Your task to perform on an android device: toggle location history Image 0: 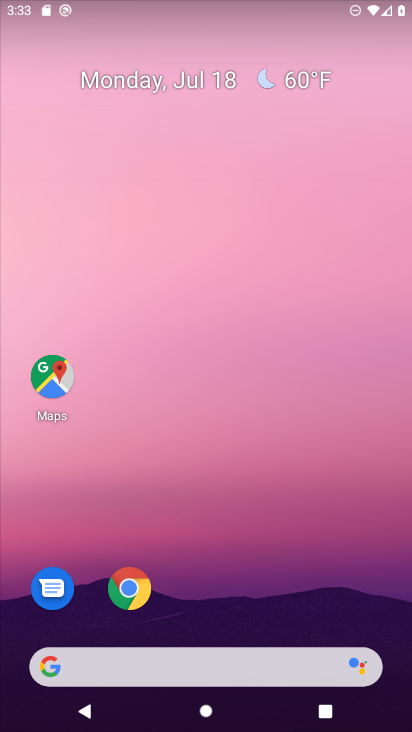
Step 0: drag from (219, 618) to (219, 50)
Your task to perform on an android device: toggle location history Image 1: 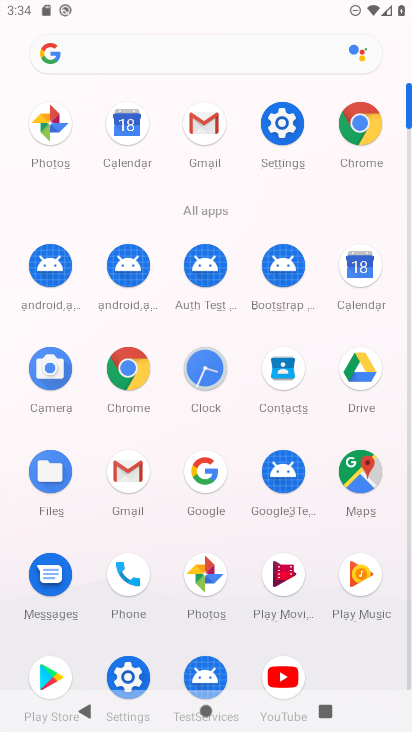
Step 1: click (275, 112)
Your task to perform on an android device: toggle location history Image 2: 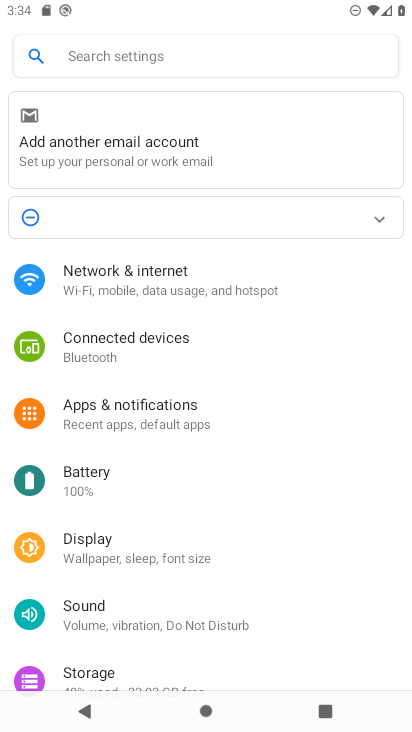
Step 2: drag from (136, 640) to (131, 252)
Your task to perform on an android device: toggle location history Image 3: 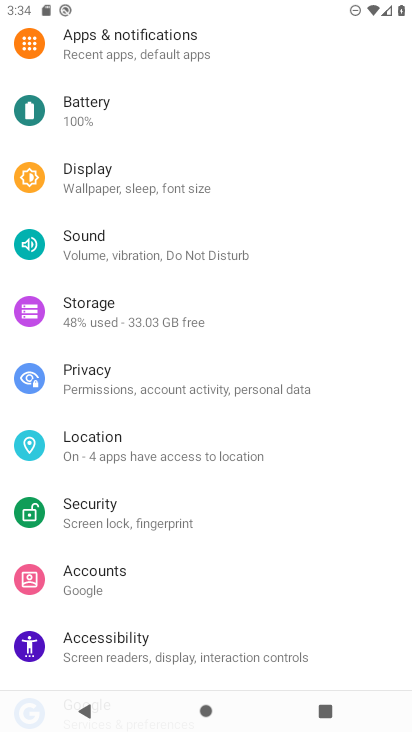
Step 3: click (133, 442)
Your task to perform on an android device: toggle location history Image 4: 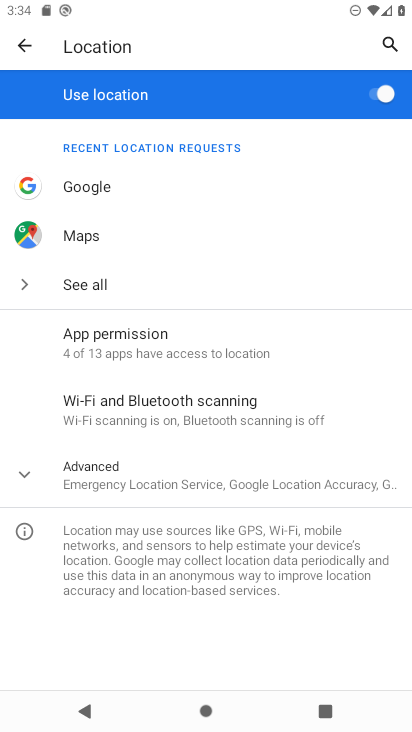
Step 4: click (40, 473)
Your task to perform on an android device: toggle location history Image 5: 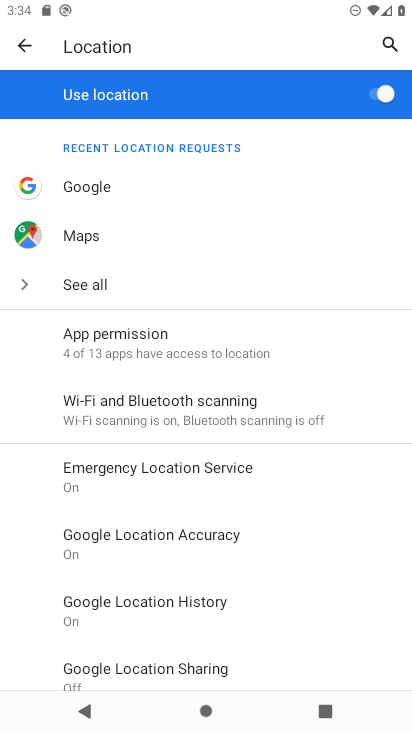
Step 5: click (187, 597)
Your task to perform on an android device: toggle location history Image 6: 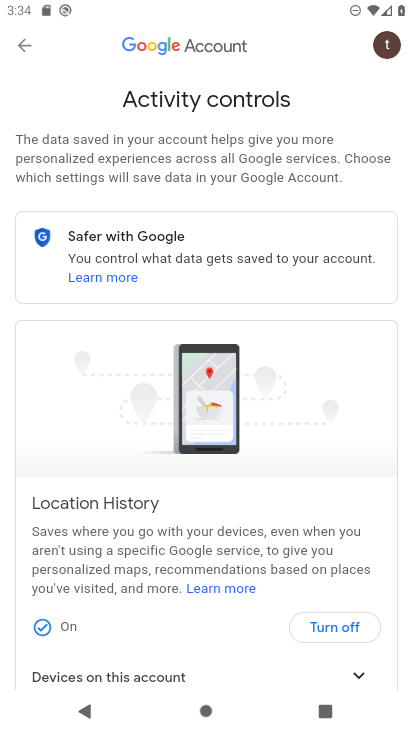
Step 6: task complete